Your task to perform on an android device: change the upload size in google photos Image 0: 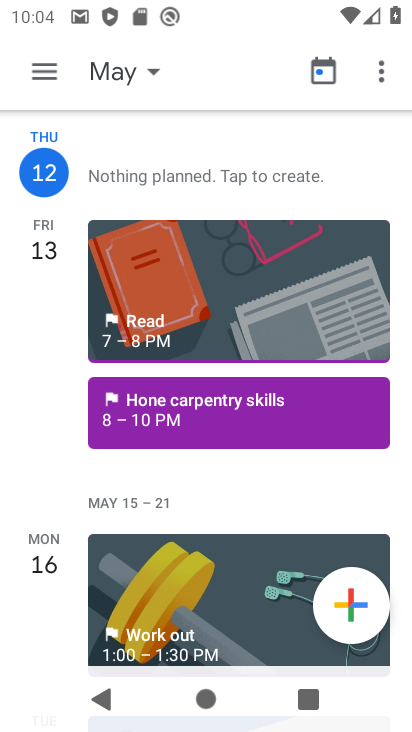
Step 0: press home button
Your task to perform on an android device: change the upload size in google photos Image 1: 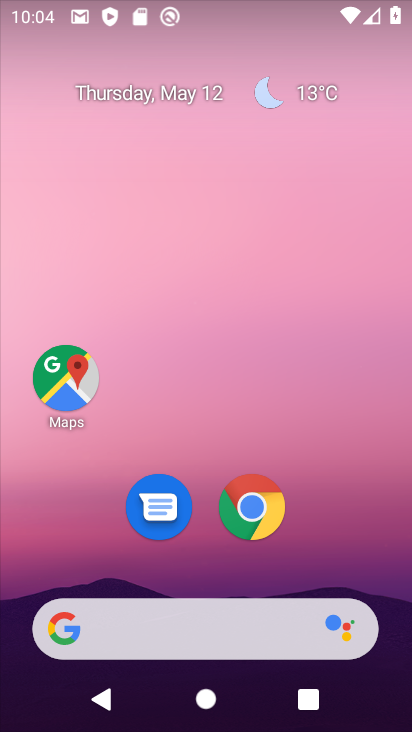
Step 1: drag from (300, 551) to (285, 113)
Your task to perform on an android device: change the upload size in google photos Image 2: 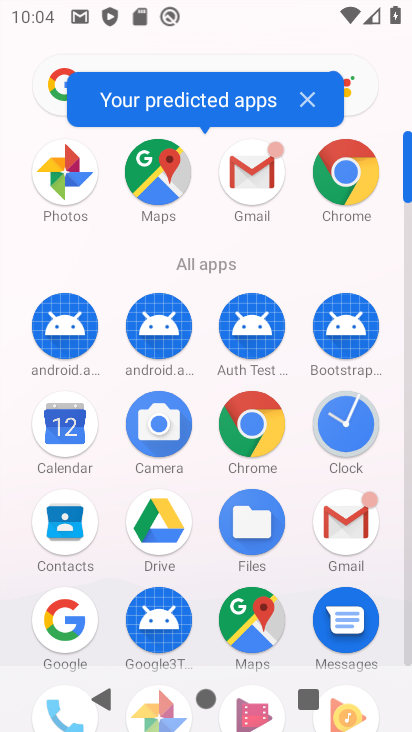
Step 2: drag from (292, 294) to (320, 8)
Your task to perform on an android device: change the upload size in google photos Image 3: 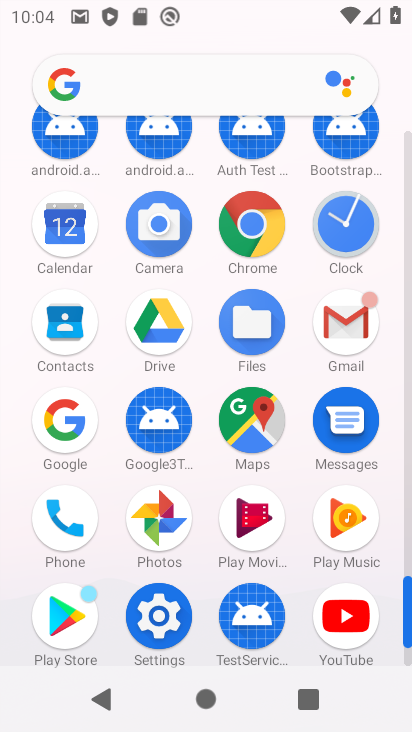
Step 3: click (155, 524)
Your task to perform on an android device: change the upload size in google photos Image 4: 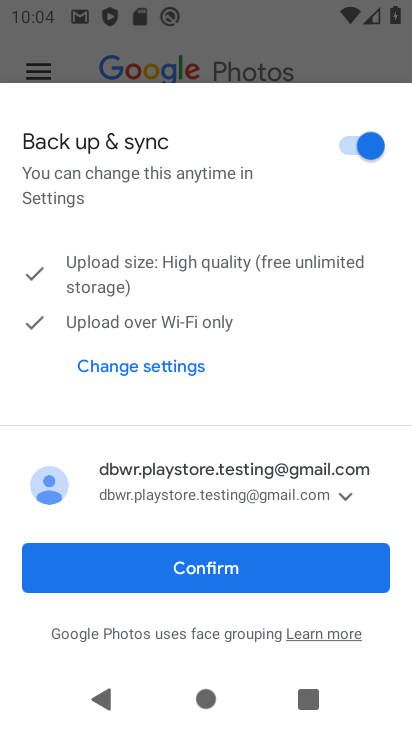
Step 4: click (264, 575)
Your task to perform on an android device: change the upload size in google photos Image 5: 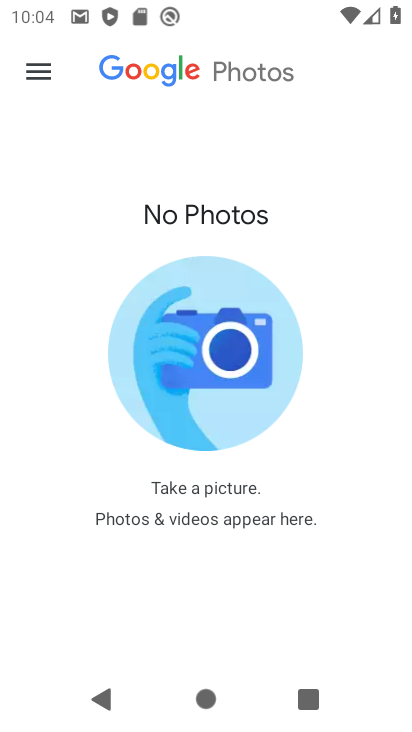
Step 5: click (39, 76)
Your task to perform on an android device: change the upload size in google photos Image 6: 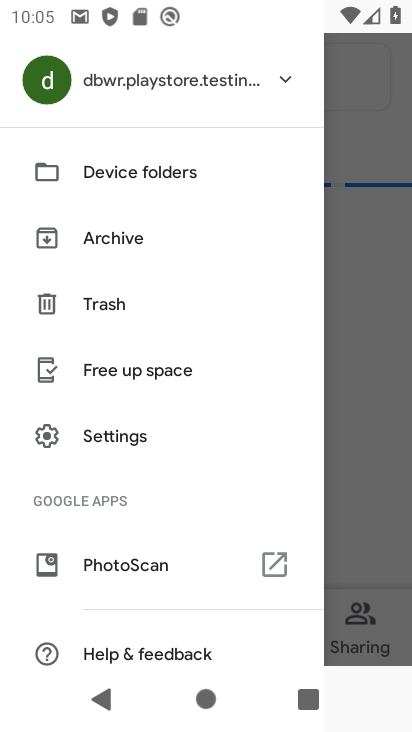
Step 6: drag from (203, 516) to (185, 203)
Your task to perform on an android device: change the upload size in google photos Image 7: 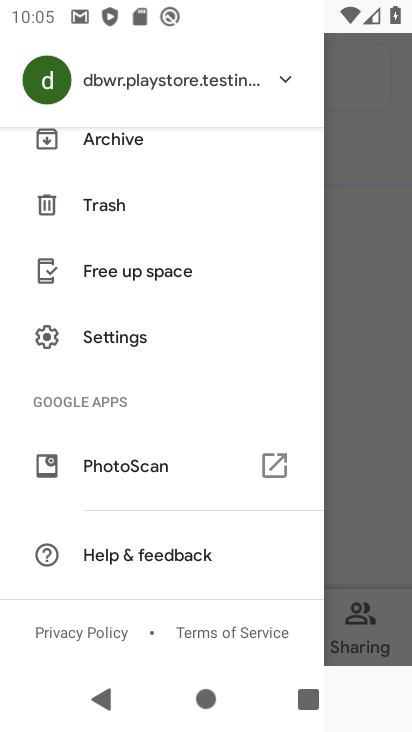
Step 7: drag from (166, 172) to (160, 483)
Your task to perform on an android device: change the upload size in google photos Image 8: 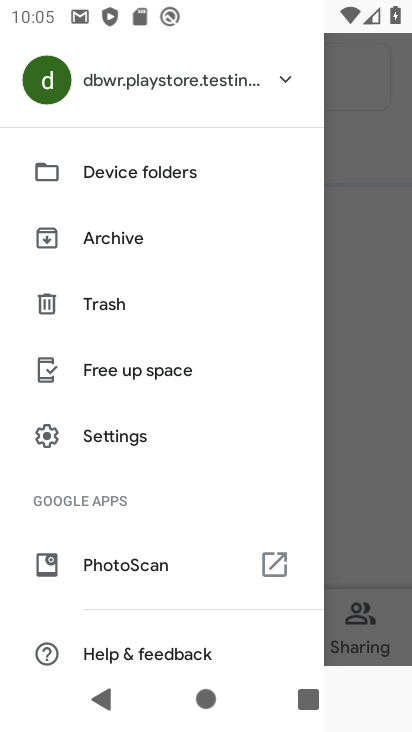
Step 8: click (128, 420)
Your task to perform on an android device: change the upload size in google photos Image 9: 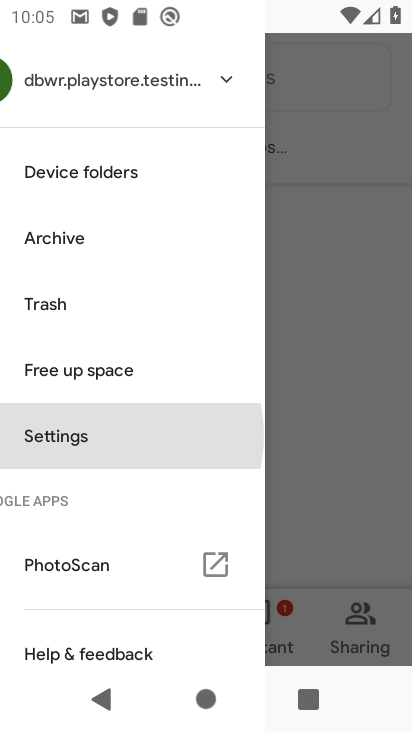
Step 9: click (124, 428)
Your task to perform on an android device: change the upload size in google photos Image 10: 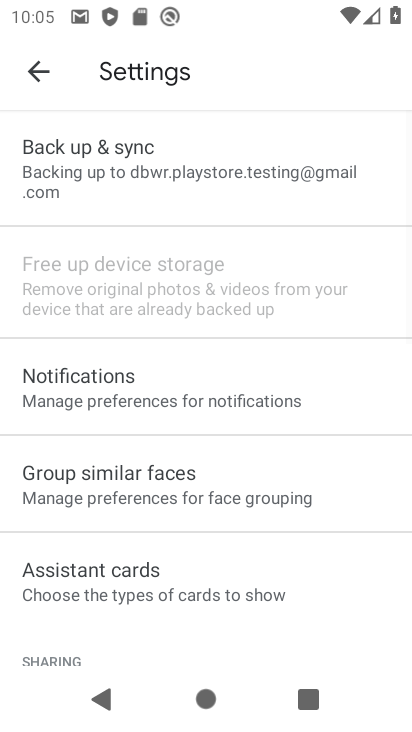
Step 10: click (93, 159)
Your task to perform on an android device: change the upload size in google photos Image 11: 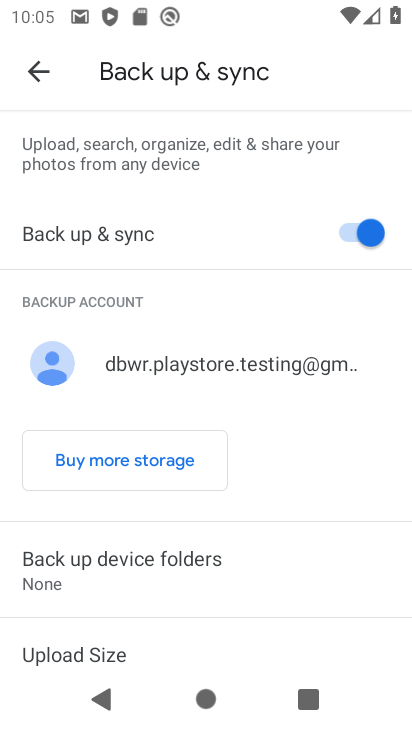
Step 11: drag from (305, 525) to (301, 218)
Your task to perform on an android device: change the upload size in google photos Image 12: 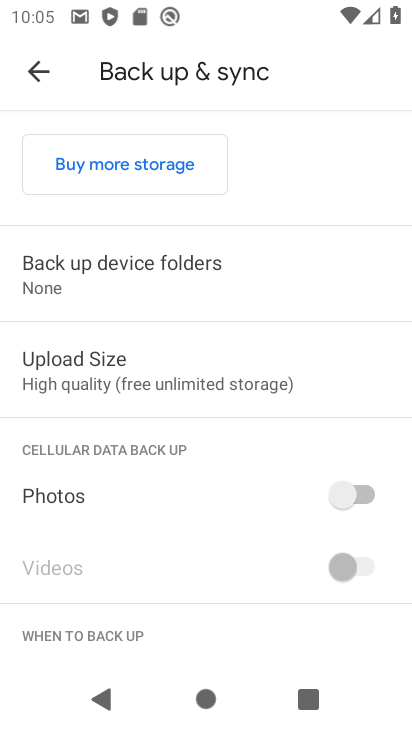
Step 12: click (164, 378)
Your task to perform on an android device: change the upload size in google photos Image 13: 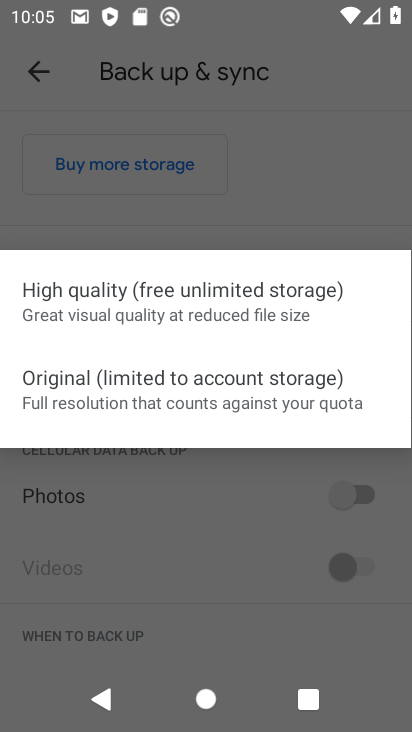
Step 13: click (190, 386)
Your task to perform on an android device: change the upload size in google photos Image 14: 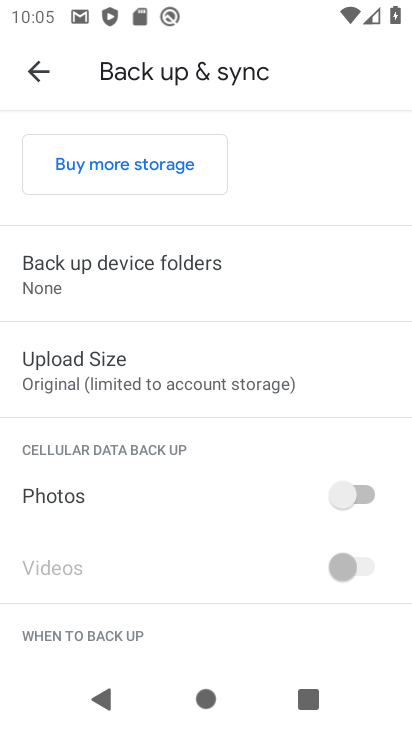
Step 14: task complete